Your task to perform on an android device: Look up the best rated gaming chairs on Target. Image 0: 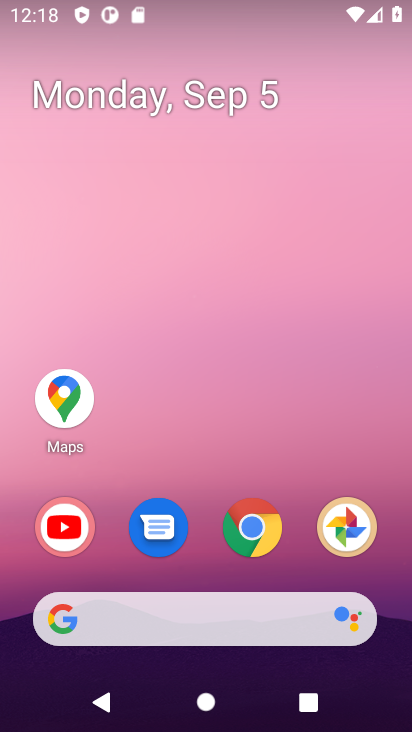
Step 0: click (264, 523)
Your task to perform on an android device: Look up the best rated gaming chairs on Target. Image 1: 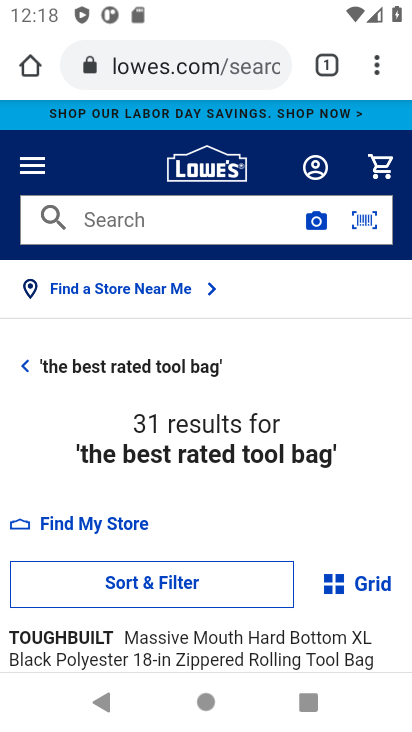
Step 1: click (210, 61)
Your task to perform on an android device: Look up the best rated gaming chairs on Target. Image 2: 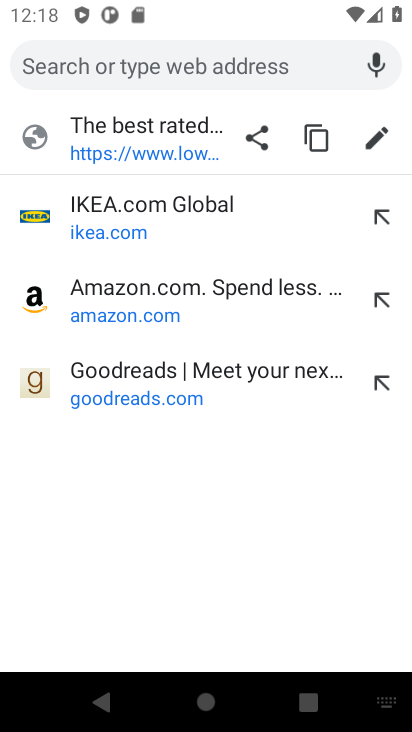
Step 2: type "target"
Your task to perform on an android device: Look up the best rated gaming chairs on Target. Image 3: 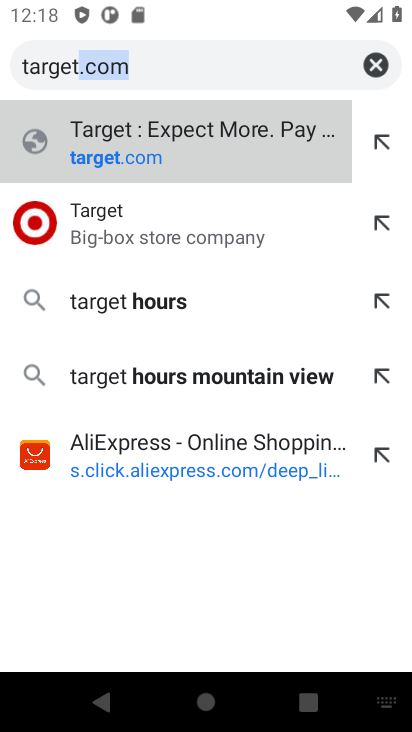
Step 3: click (189, 140)
Your task to perform on an android device: Look up the best rated gaming chairs on Target. Image 4: 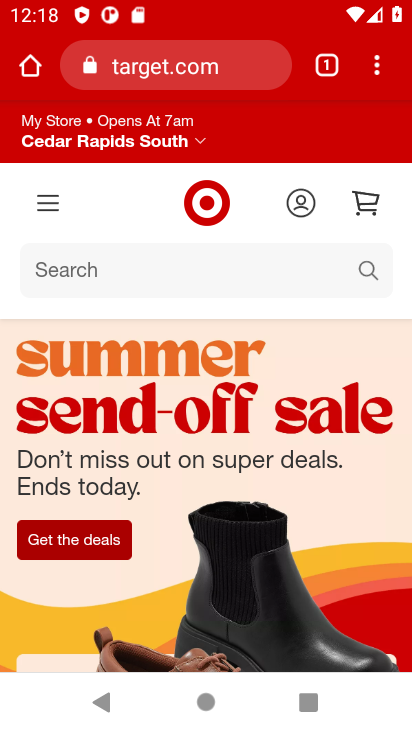
Step 4: click (277, 275)
Your task to perform on an android device: Look up the best rated gaming chairs on Target. Image 5: 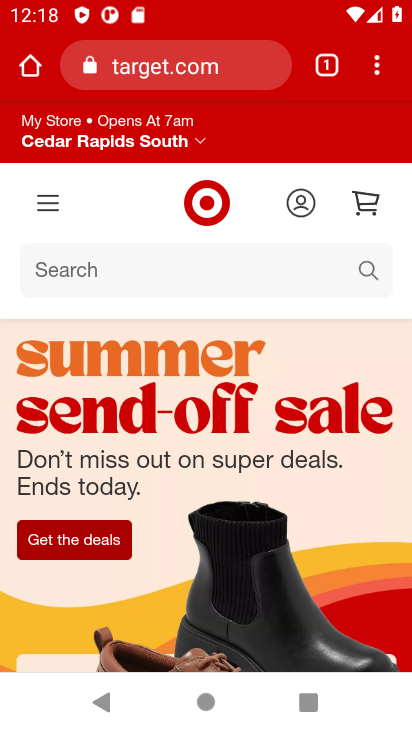
Step 5: click (277, 275)
Your task to perform on an android device: Look up the best rated gaming chairs on Target. Image 6: 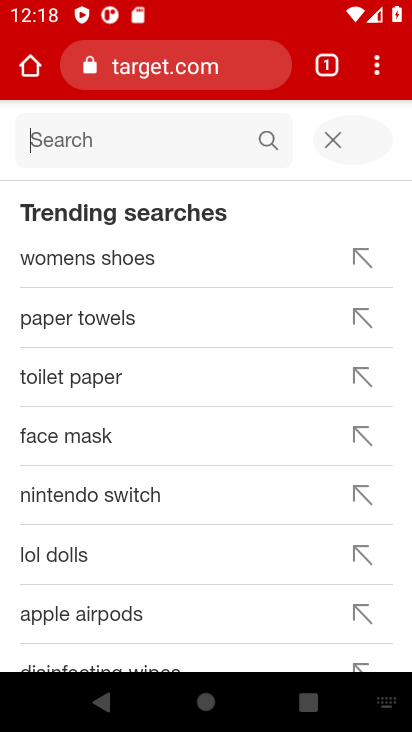
Step 6: type "the best rated gaming chairs"
Your task to perform on an android device: Look up the best rated gaming chairs on Target. Image 7: 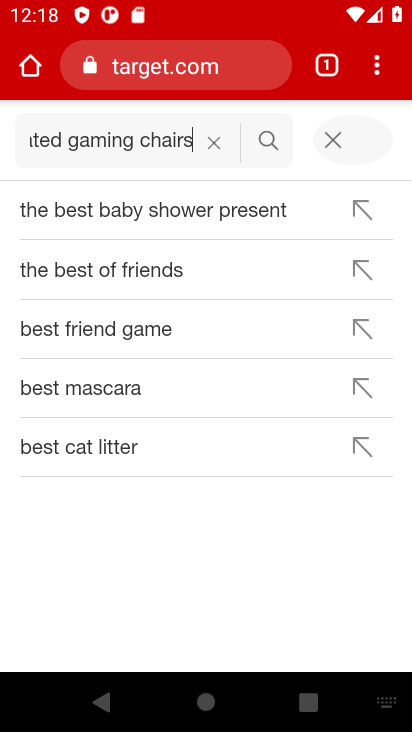
Step 7: click (267, 137)
Your task to perform on an android device: Look up the best rated gaming chairs on Target. Image 8: 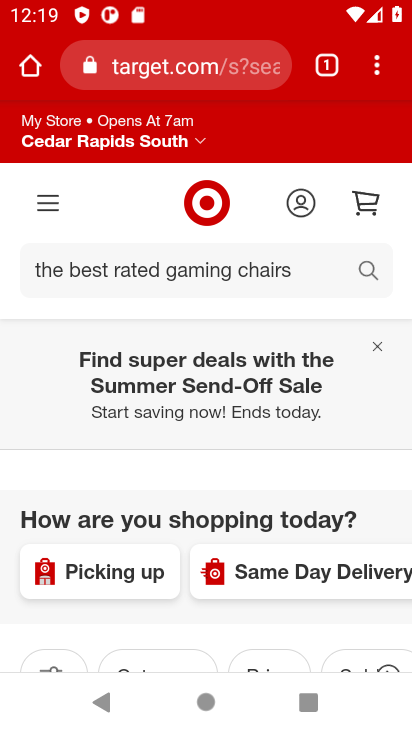
Step 8: click (366, 271)
Your task to perform on an android device: Look up the best rated gaming chairs on Target. Image 9: 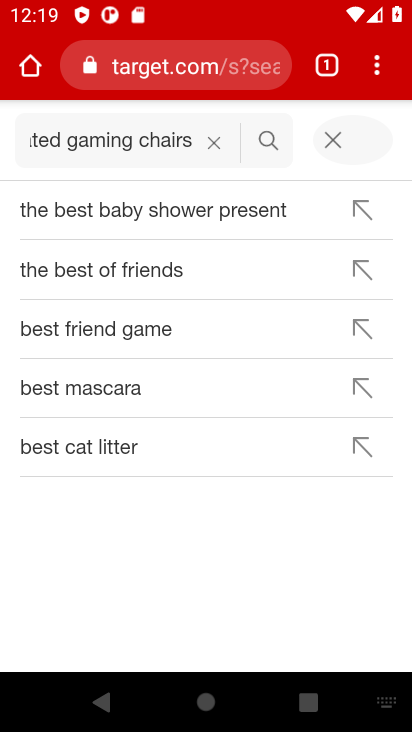
Step 9: click (266, 134)
Your task to perform on an android device: Look up the best rated gaming chairs on Target. Image 10: 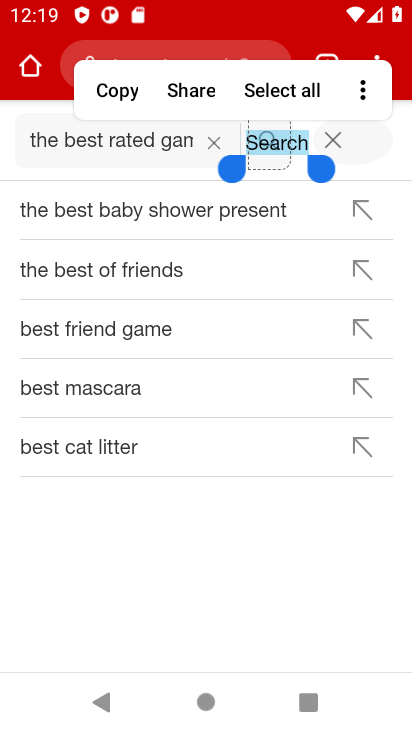
Step 10: click (262, 122)
Your task to perform on an android device: Look up the best rated gaming chairs on Target. Image 11: 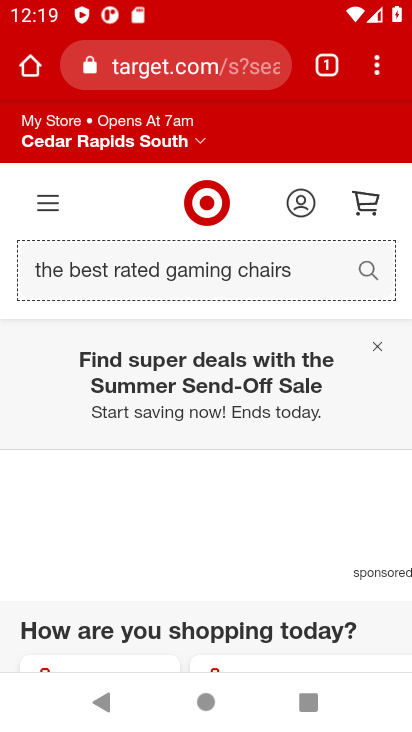
Step 11: task complete